Your task to perform on an android device: Open the calendar and show me this week's events? Image 0: 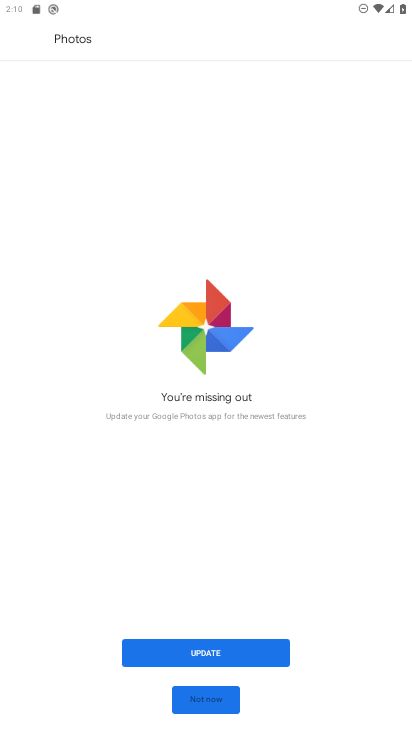
Step 0: press home button
Your task to perform on an android device: Open the calendar and show me this week's events? Image 1: 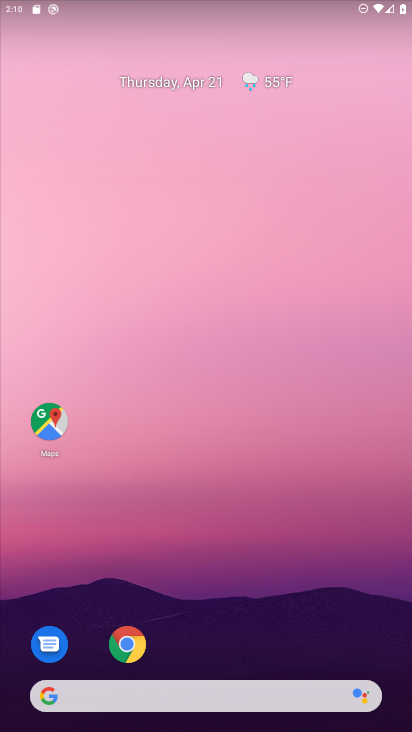
Step 1: drag from (216, 605) to (217, 268)
Your task to perform on an android device: Open the calendar and show me this week's events? Image 2: 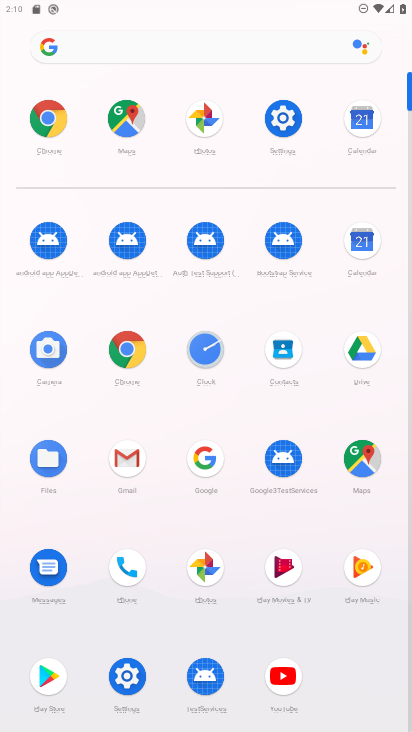
Step 2: click (361, 255)
Your task to perform on an android device: Open the calendar and show me this week's events? Image 3: 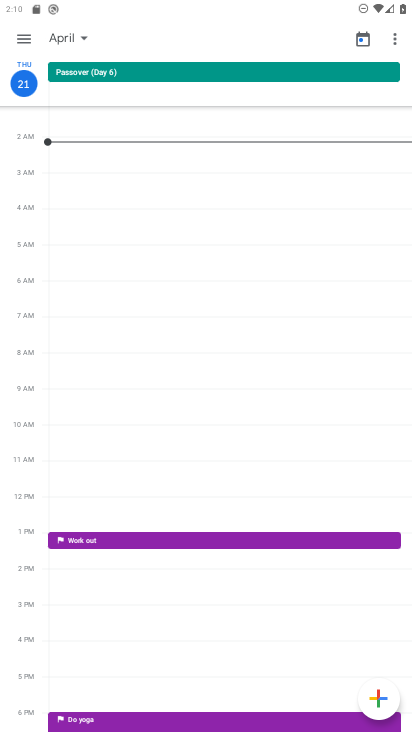
Step 3: click (28, 39)
Your task to perform on an android device: Open the calendar and show me this week's events? Image 4: 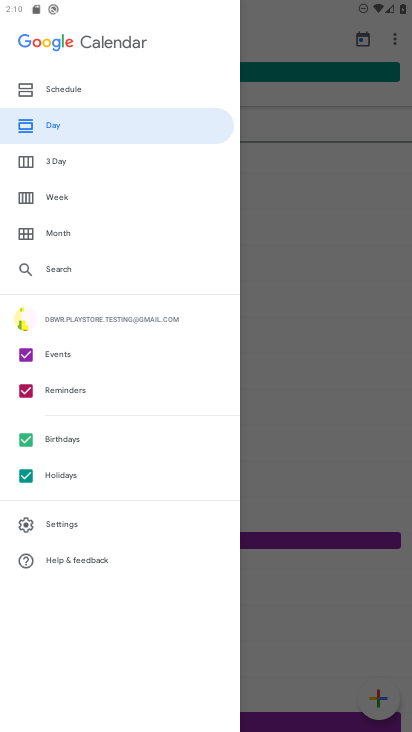
Step 4: click (100, 200)
Your task to perform on an android device: Open the calendar and show me this week's events? Image 5: 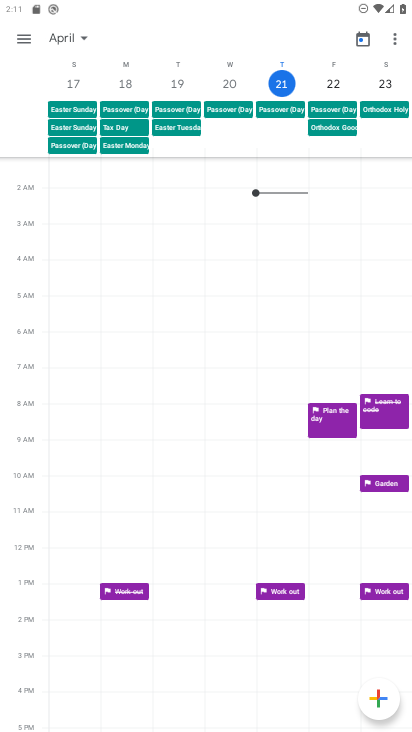
Step 5: click (28, 35)
Your task to perform on an android device: Open the calendar and show me this week's events? Image 6: 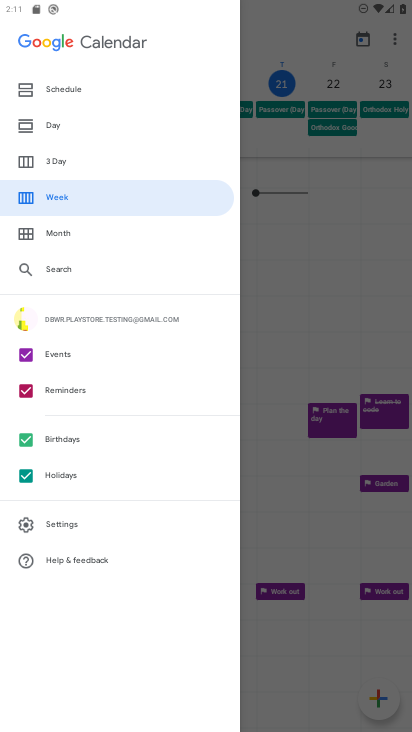
Step 6: click (21, 476)
Your task to perform on an android device: Open the calendar and show me this week's events? Image 7: 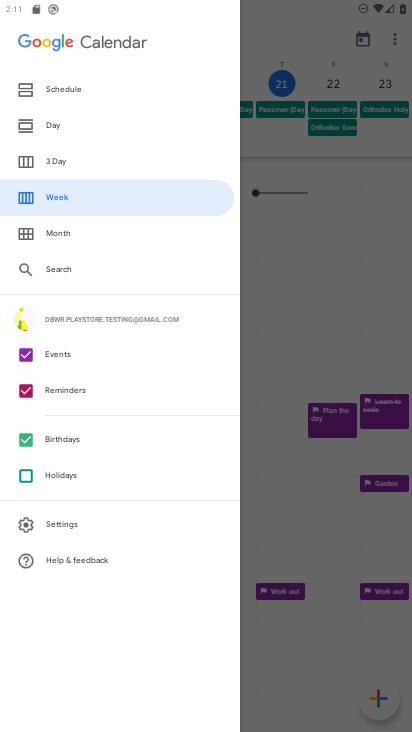
Step 7: click (25, 437)
Your task to perform on an android device: Open the calendar and show me this week's events? Image 8: 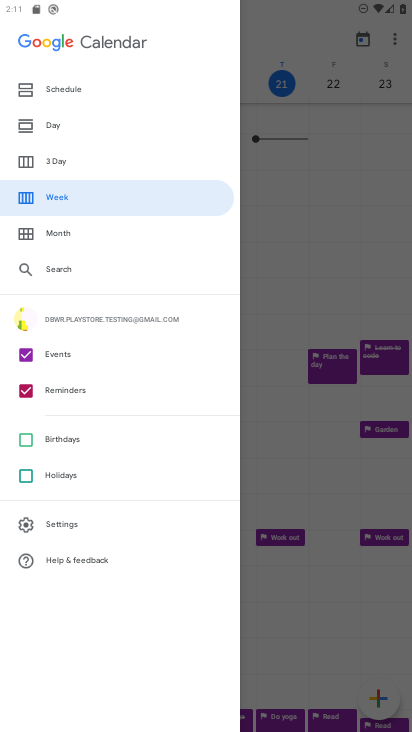
Step 8: click (21, 391)
Your task to perform on an android device: Open the calendar and show me this week's events? Image 9: 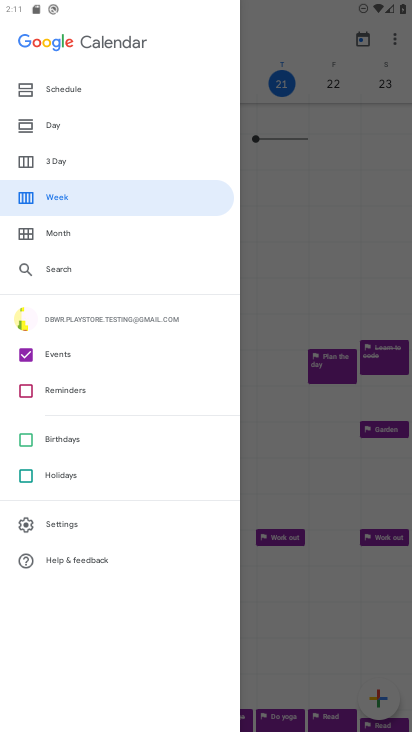
Step 9: click (206, 200)
Your task to perform on an android device: Open the calendar and show me this week's events? Image 10: 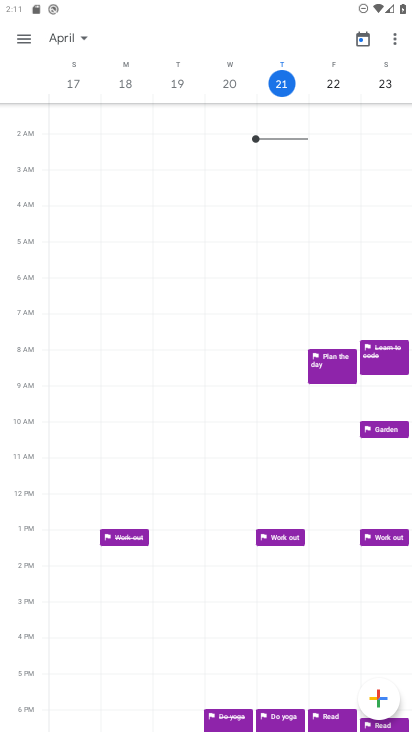
Step 10: click (87, 42)
Your task to perform on an android device: Open the calendar and show me this week's events? Image 11: 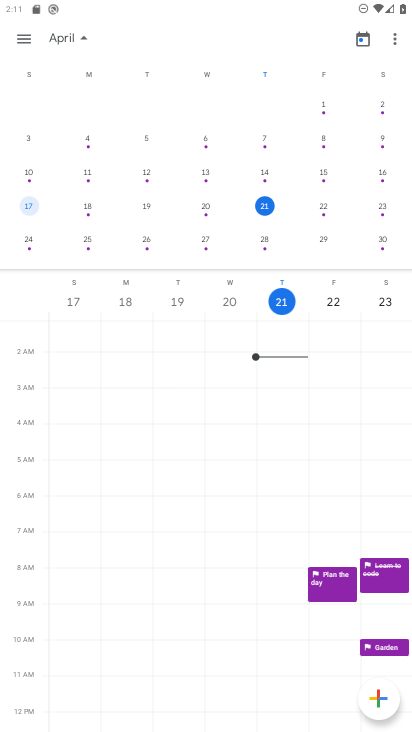
Step 11: click (86, 51)
Your task to perform on an android device: Open the calendar and show me this week's events? Image 12: 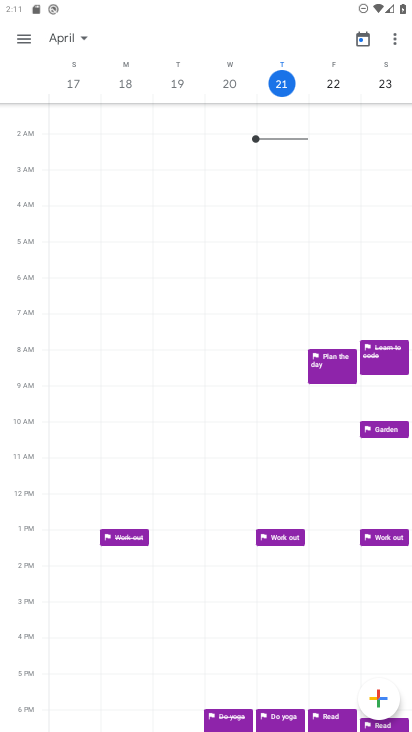
Step 12: task complete